Your task to perform on an android device: uninstall "Fetch Rewards" Image 0: 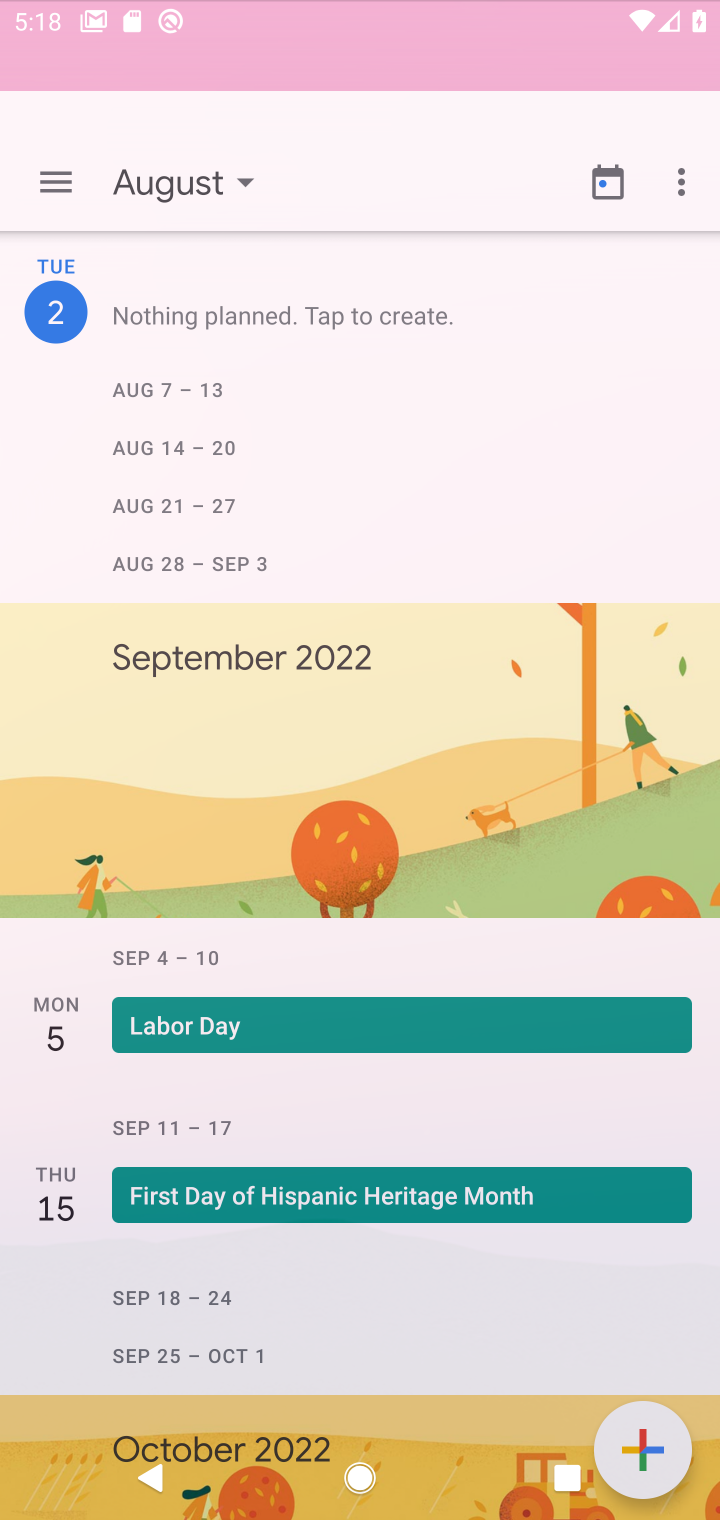
Step 0: click (571, 92)
Your task to perform on an android device: uninstall "Fetch Rewards" Image 1: 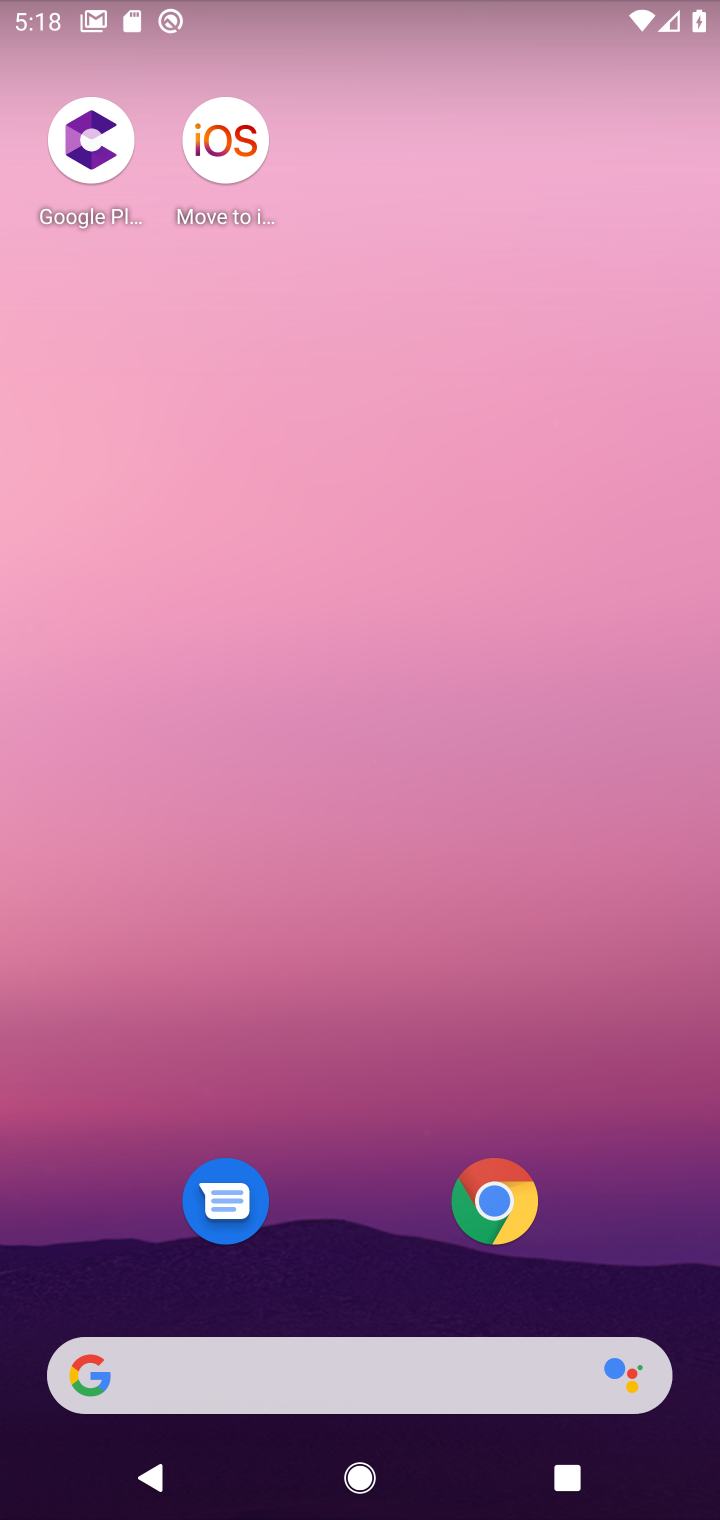
Step 1: drag from (240, 1280) to (470, 657)
Your task to perform on an android device: uninstall "Fetch Rewards" Image 2: 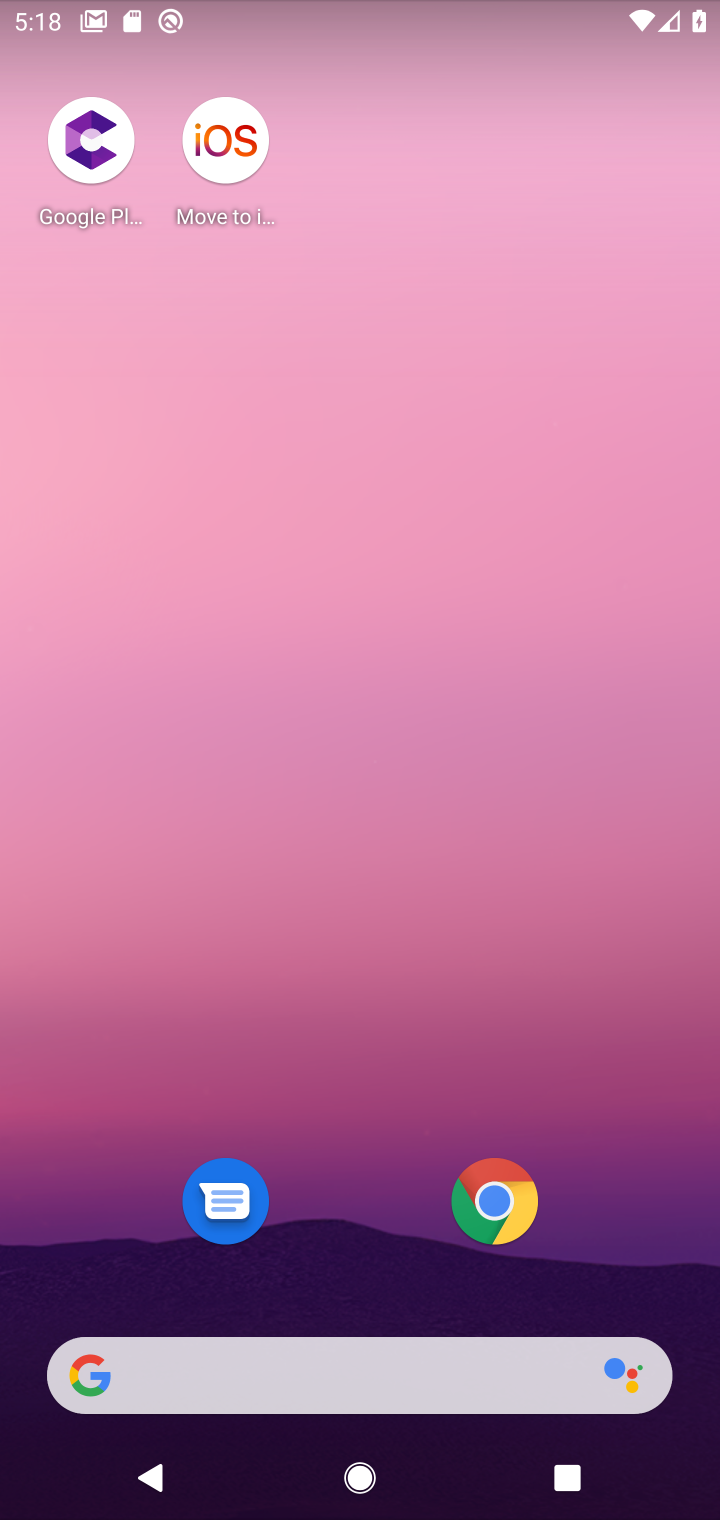
Step 2: drag from (268, 1160) to (434, 194)
Your task to perform on an android device: uninstall "Fetch Rewards" Image 3: 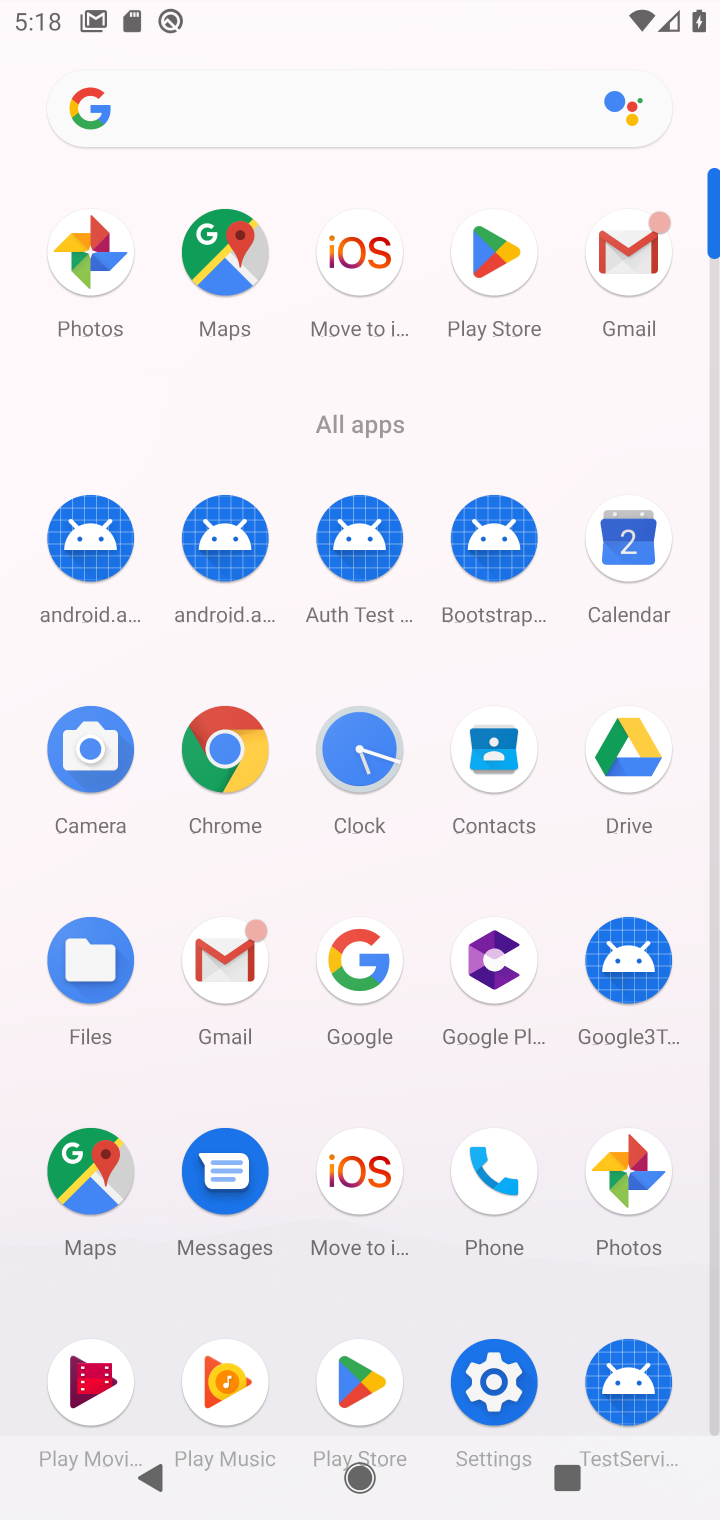
Step 3: click (344, 1368)
Your task to perform on an android device: uninstall "Fetch Rewards" Image 4: 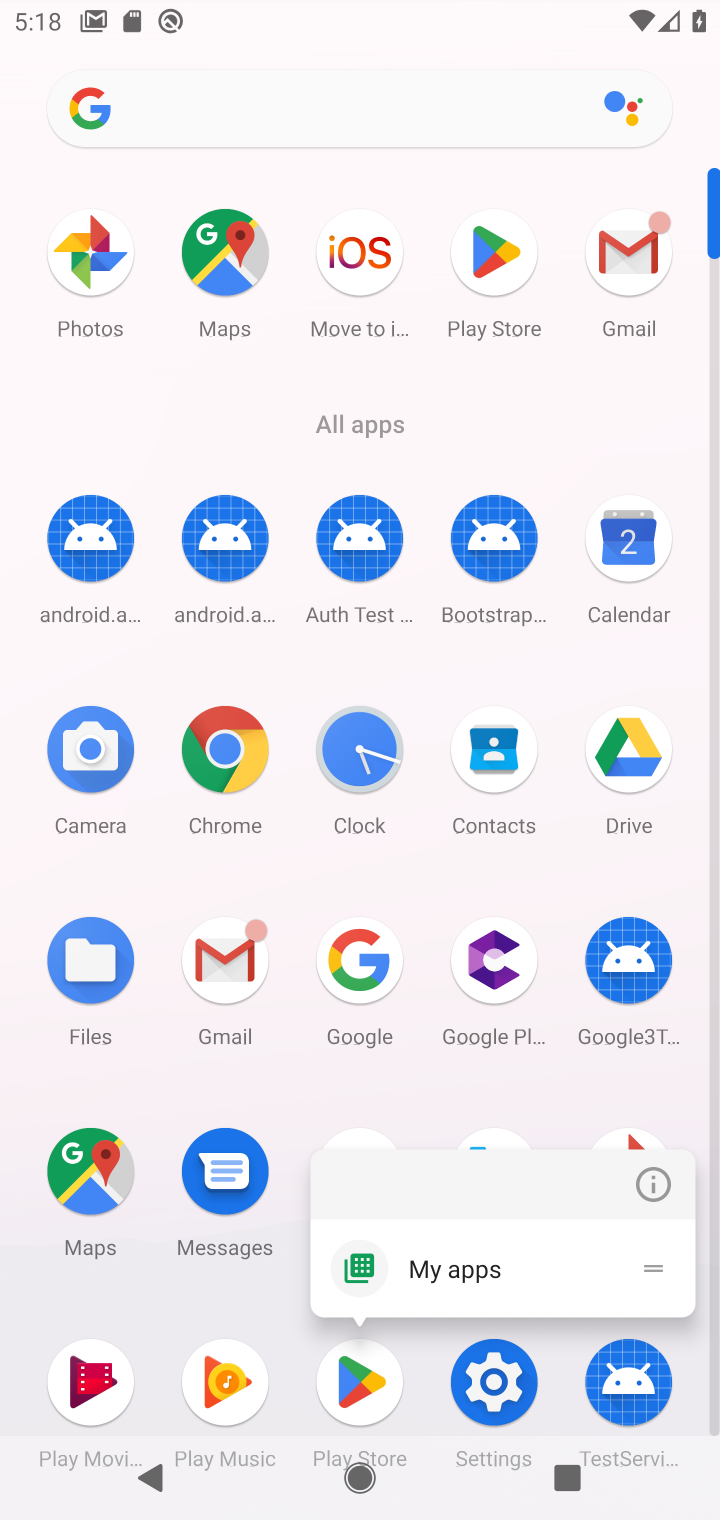
Step 4: click (346, 1359)
Your task to perform on an android device: uninstall "Fetch Rewards" Image 5: 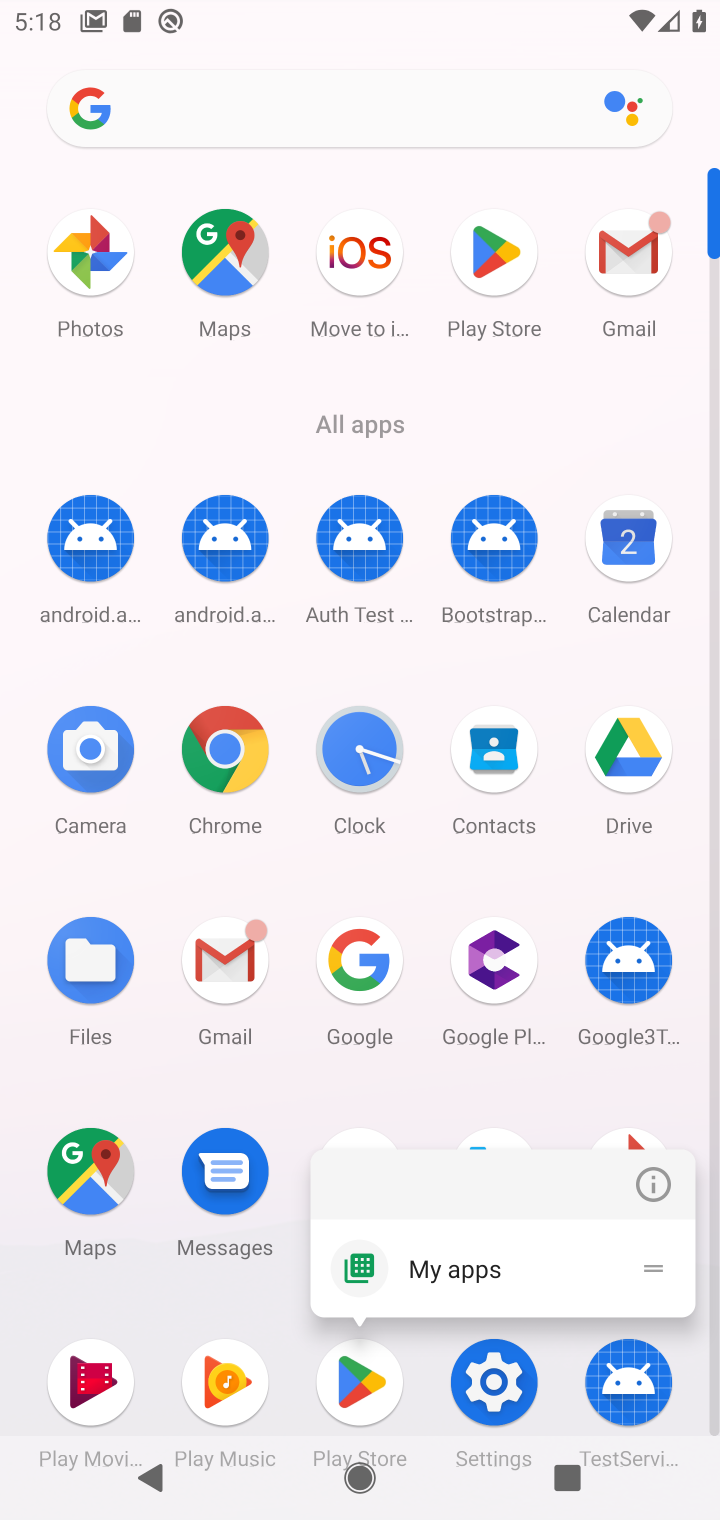
Step 5: click (492, 243)
Your task to perform on an android device: uninstall "Fetch Rewards" Image 6: 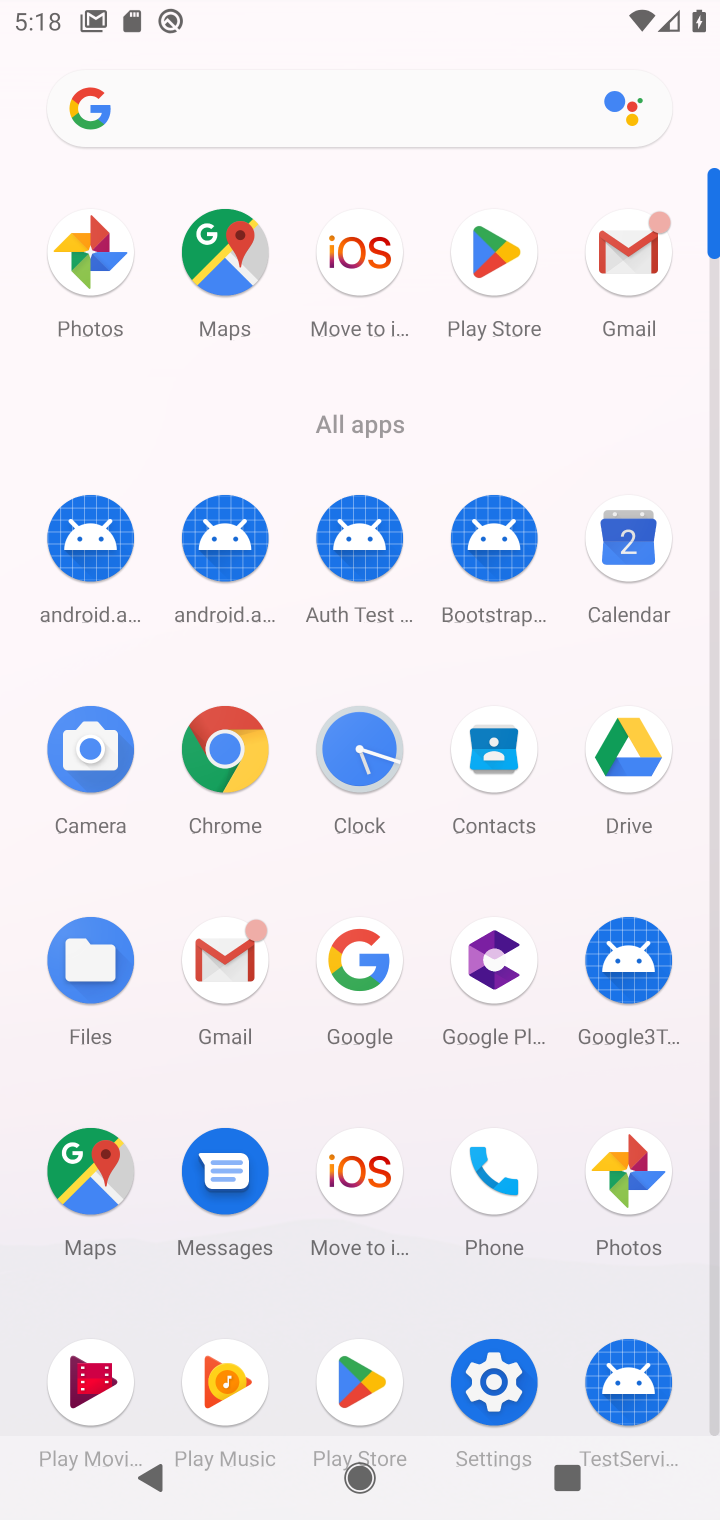
Step 6: click (488, 246)
Your task to perform on an android device: uninstall "Fetch Rewards" Image 7: 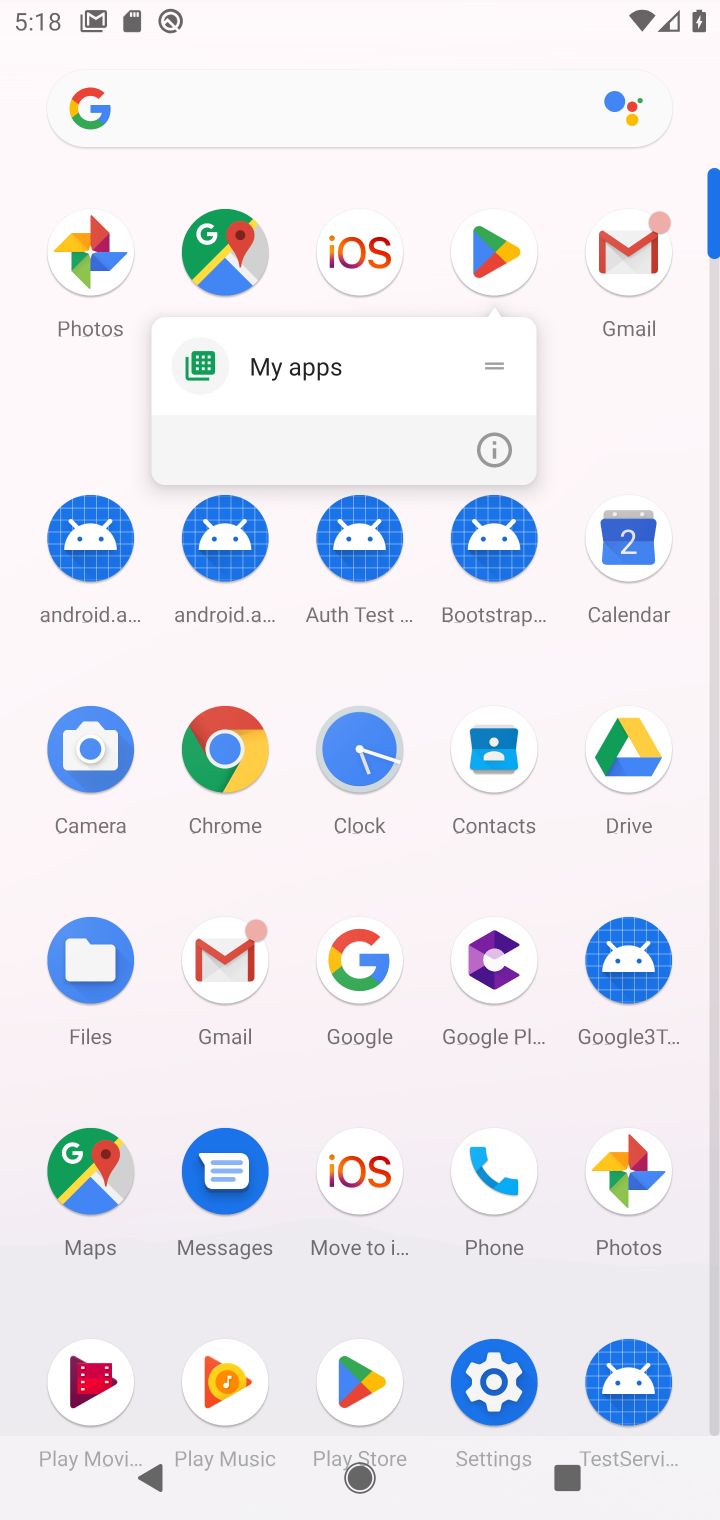
Step 7: click (488, 246)
Your task to perform on an android device: uninstall "Fetch Rewards" Image 8: 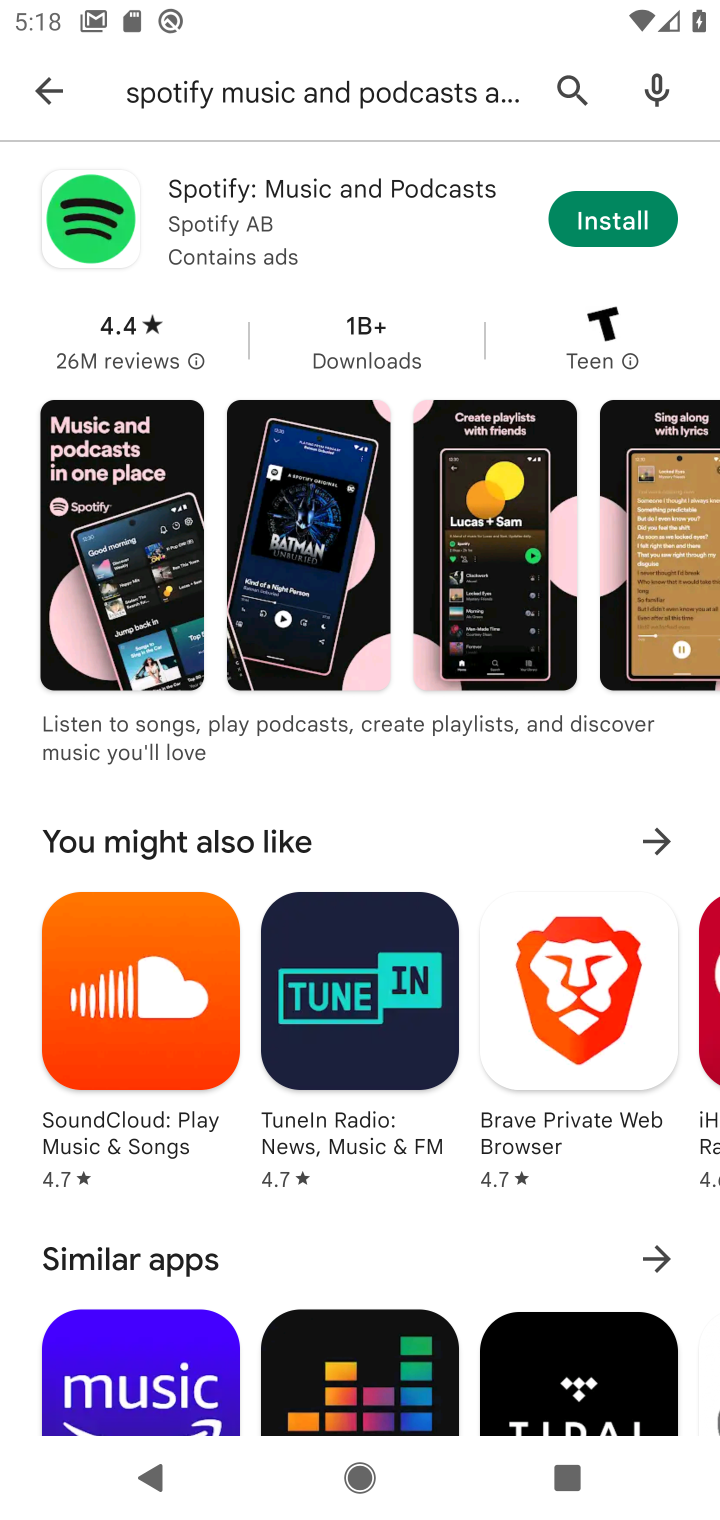
Step 8: click (586, 82)
Your task to perform on an android device: uninstall "Fetch Rewards" Image 9: 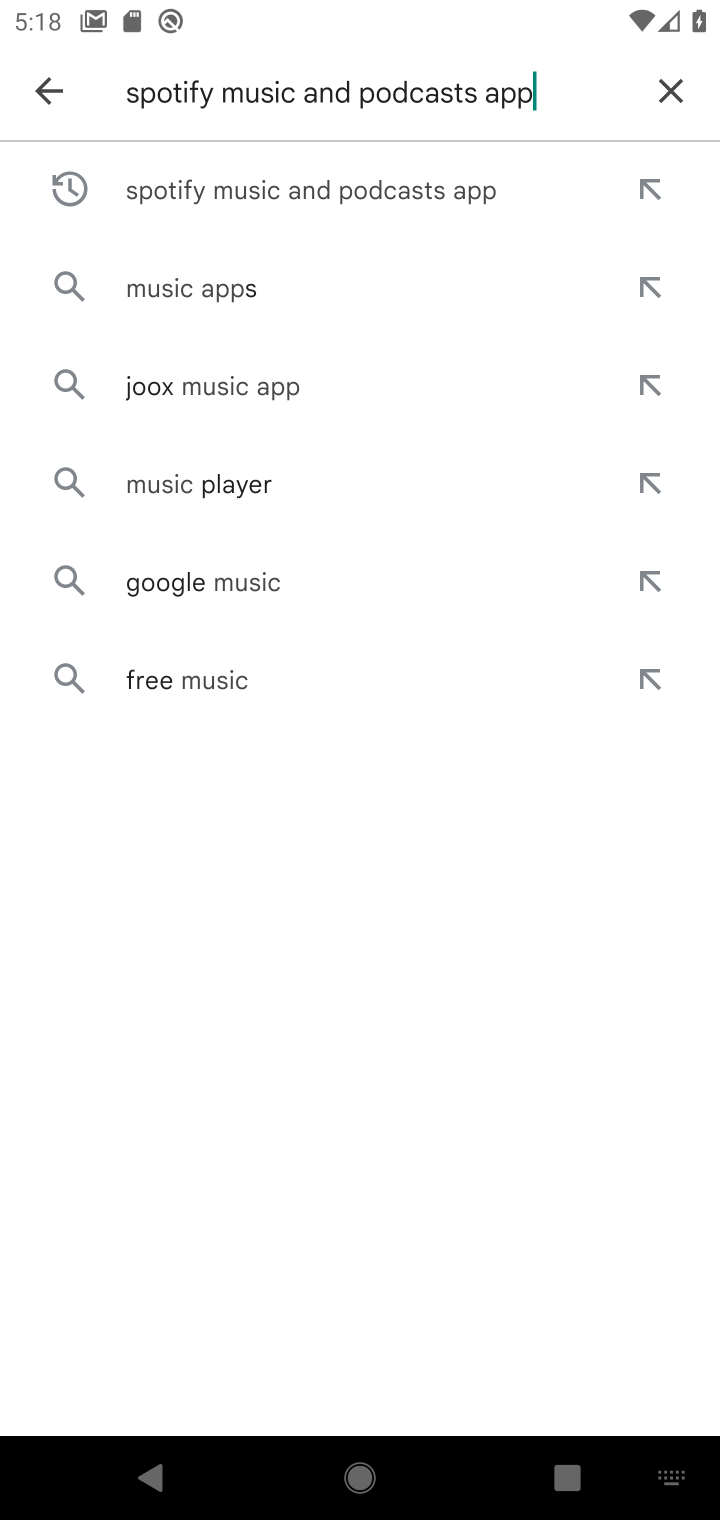
Step 9: click (689, 76)
Your task to perform on an android device: uninstall "Fetch Rewards" Image 10: 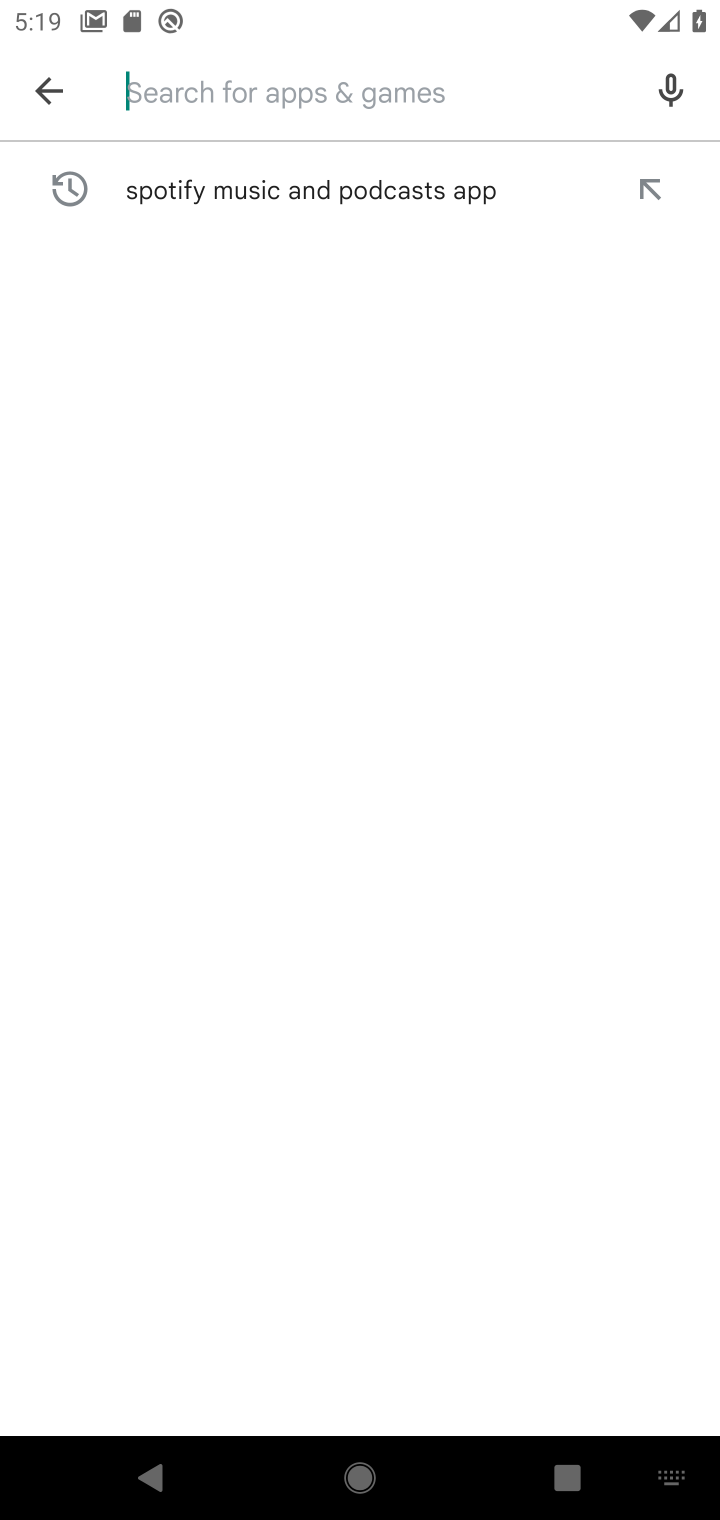
Step 10: type "Fetch Rewards"
Your task to perform on an android device: uninstall "Fetch Rewards" Image 11: 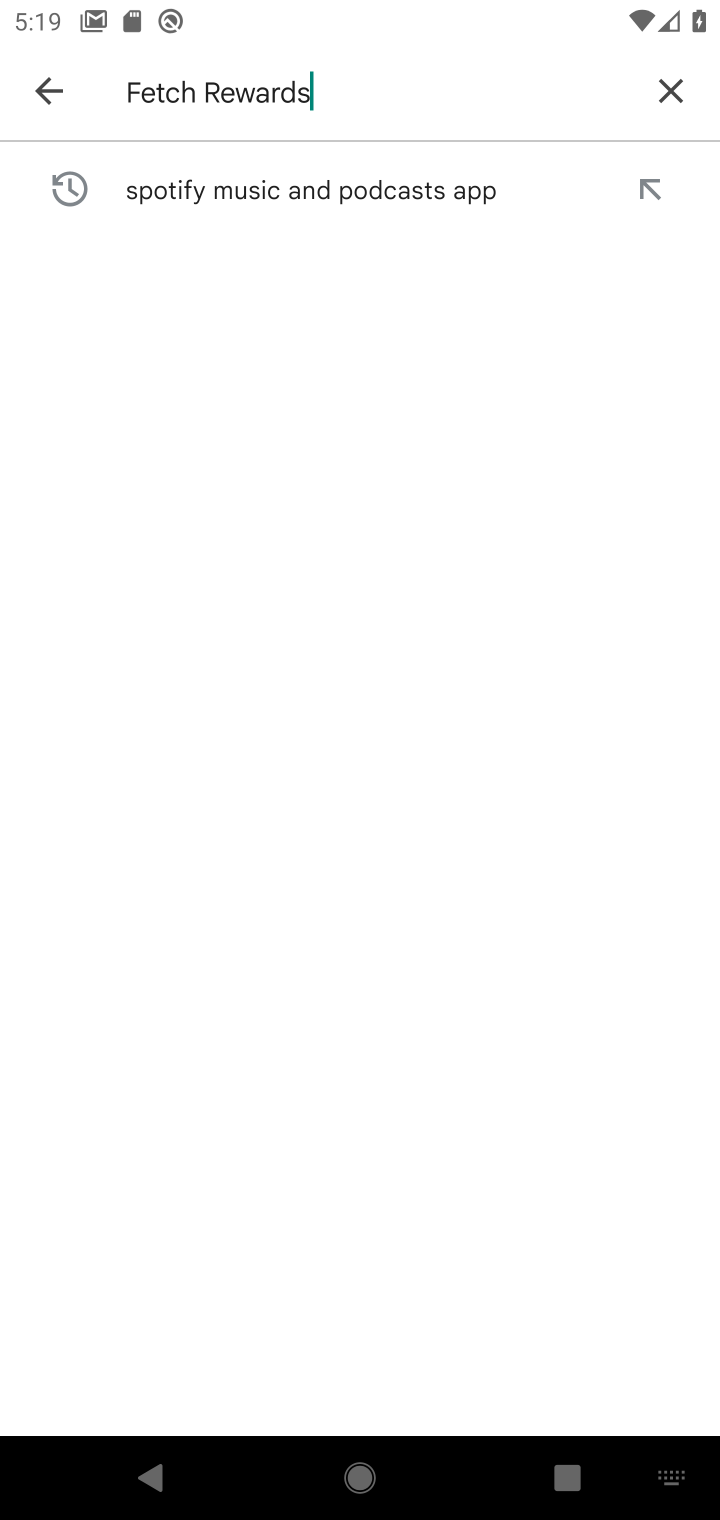
Step 11: type ""
Your task to perform on an android device: uninstall "Fetch Rewards" Image 12: 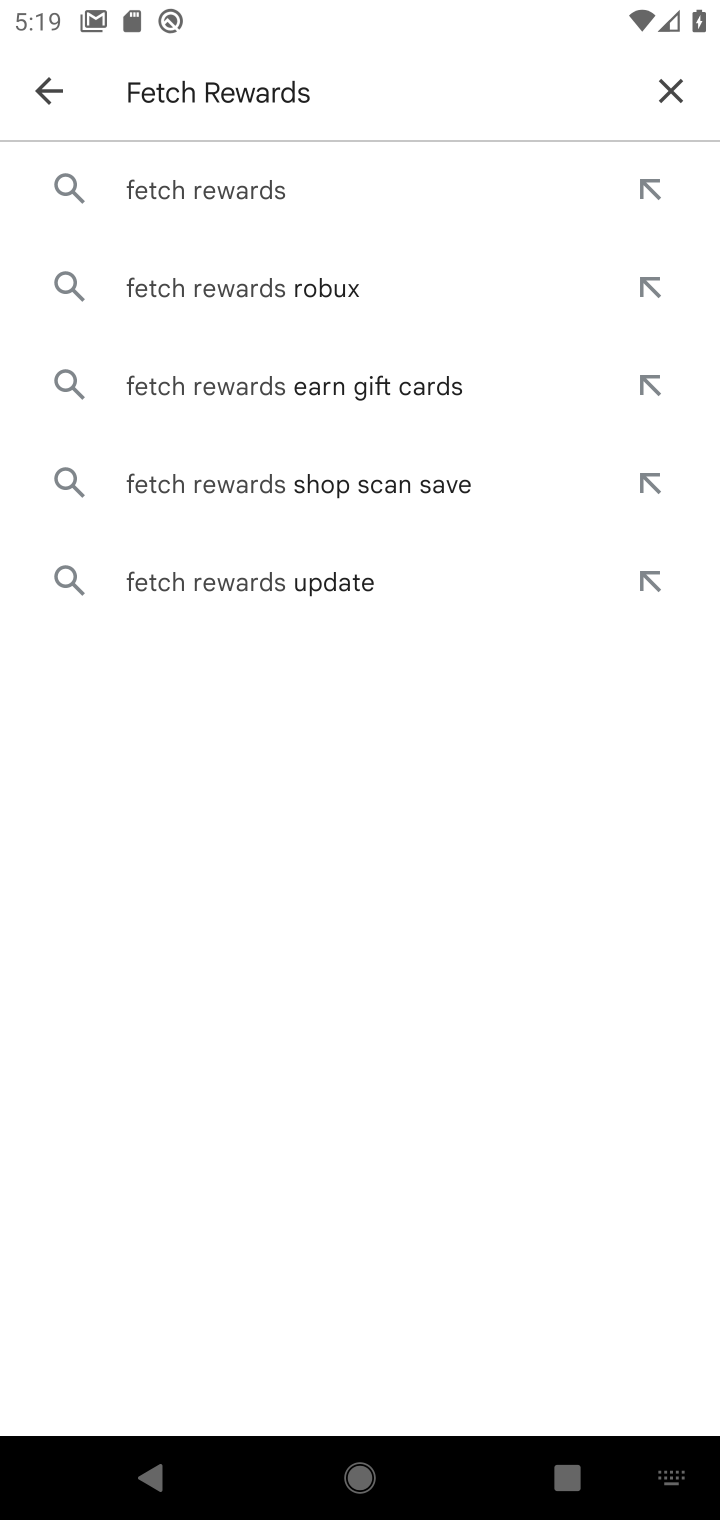
Step 12: click (206, 182)
Your task to perform on an android device: uninstall "Fetch Rewards" Image 13: 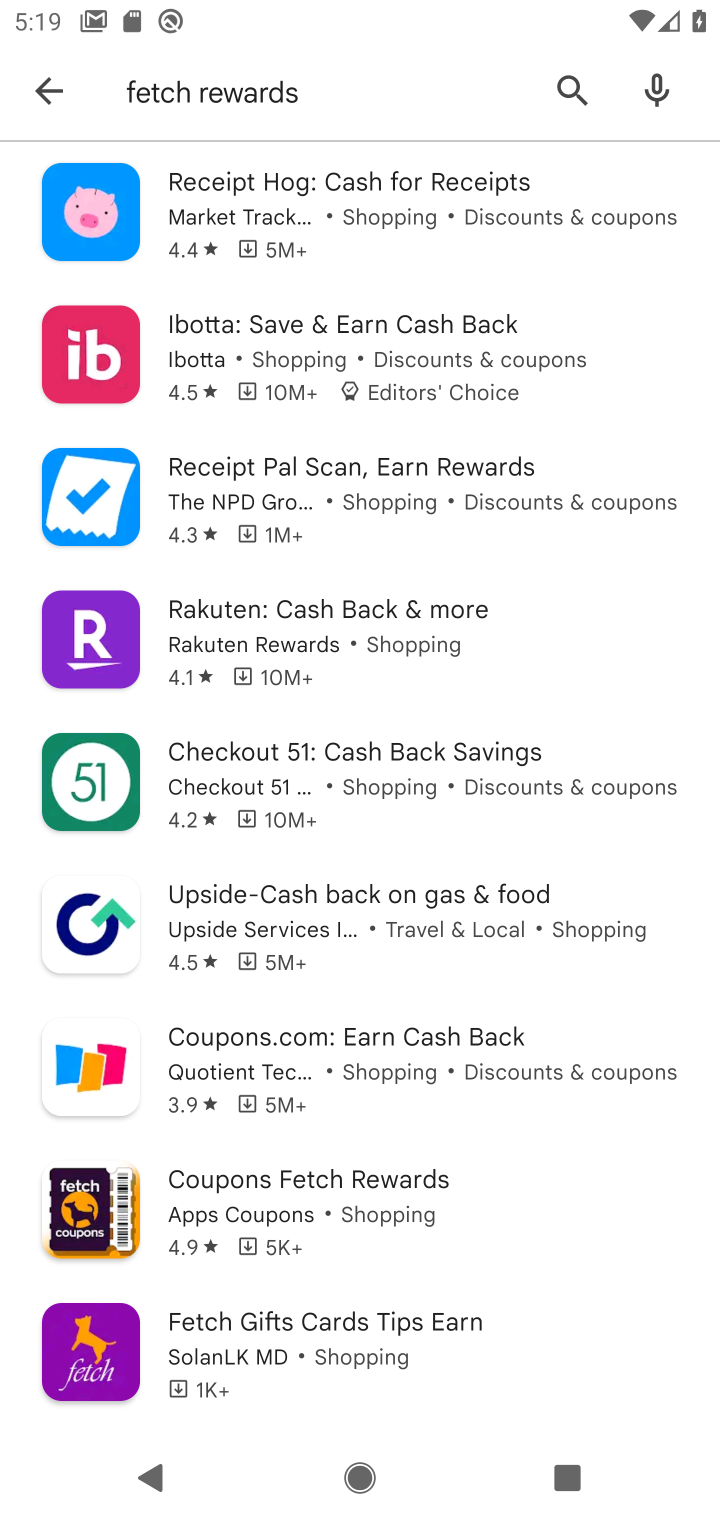
Step 13: task complete